Your task to perform on an android device: open the mobile data screen to see how much data has been used Image 0: 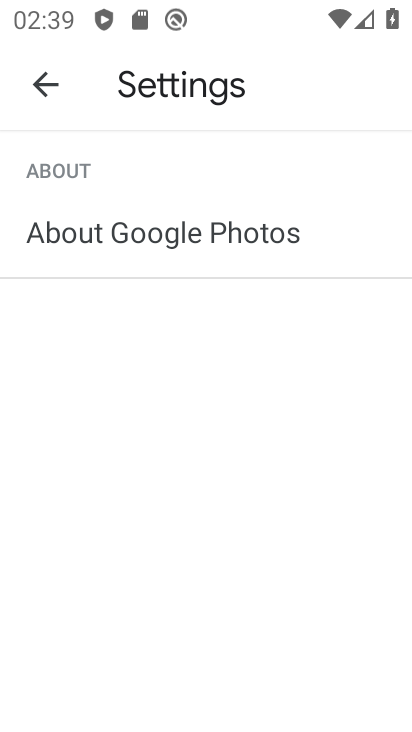
Step 0: press back button
Your task to perform on an android device: open the mobile data screen to see how much data has been used Image 1: 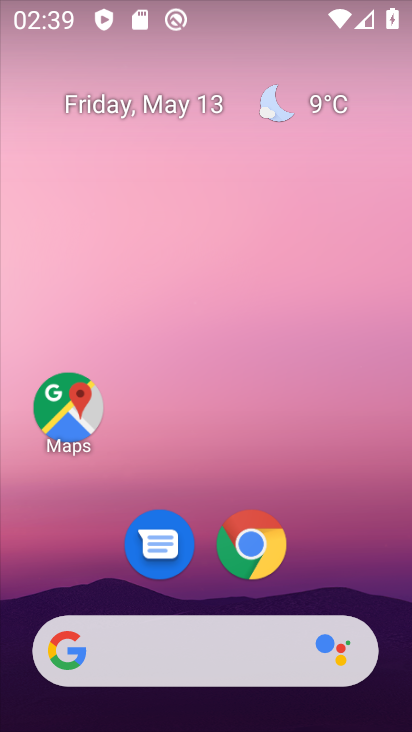
Step 1: drag from (314, 512) to (233, 33)
Your task to perform on an android device: open the mobile data screen to see how much data has been used Image 2: 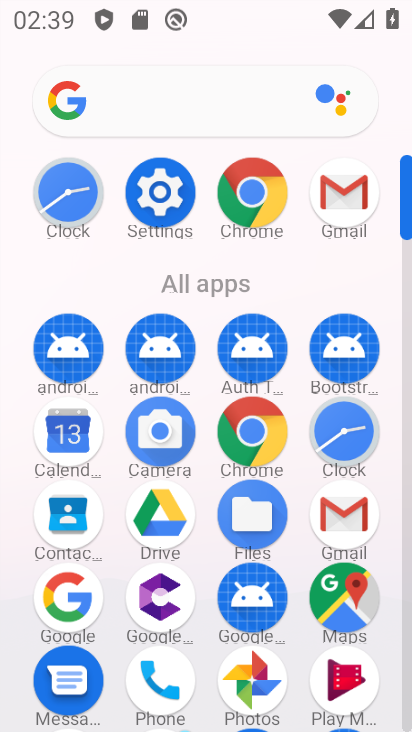
Step 2: drag from (13, 550) to (7, 269)
Your task to perform on an android device: open the mobile data screen to see how much data has been used Image 3: 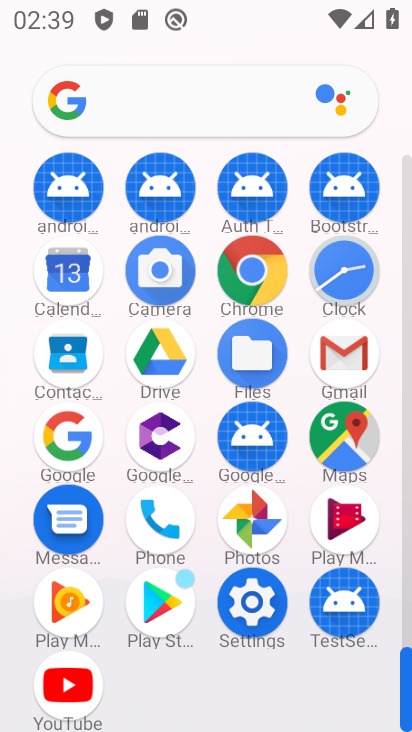
Step 3: click (257, 601)
Your task to perform on an android device: open the mobile data screen to see how much data has been used Image 4: 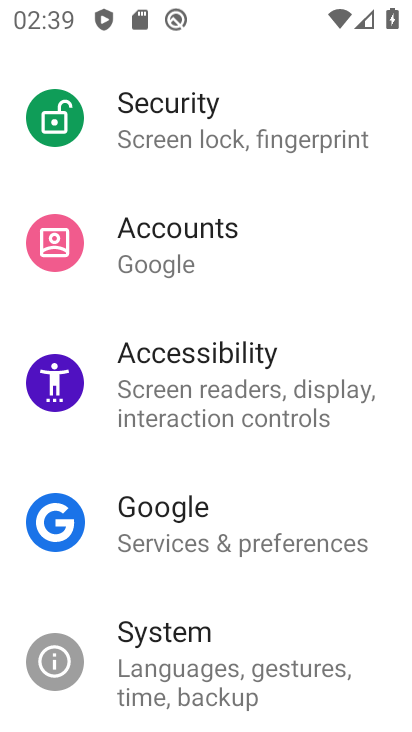
Step 4: drag from (225, 139) to (242, 675)
Your task to perform on an android device: open the mobile data screen to see how much data has been used Image 5: 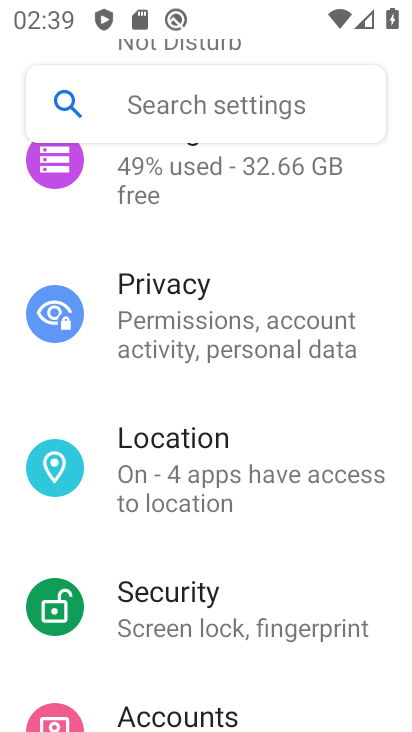
Step 5: drag from (295, 176) to (293, 630)
Your task to perform on an android device: open the mobile data screen to see how much data has been used Image 6: 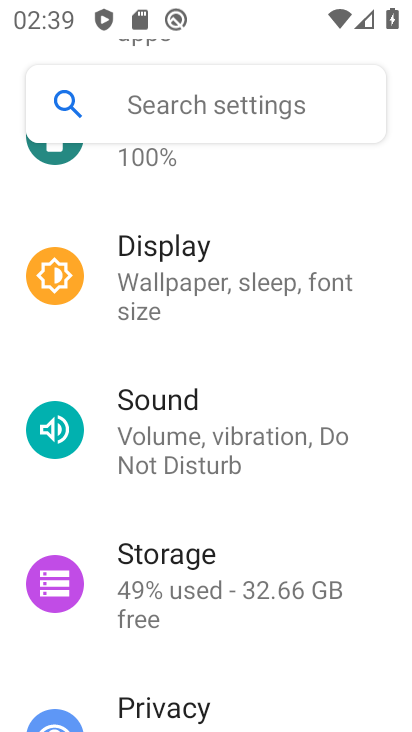
Step 6: drag from (309, 257) to (309, 658)
Your task to perform on an android device: open the mobile data screen to see how much data has been used Image 7: 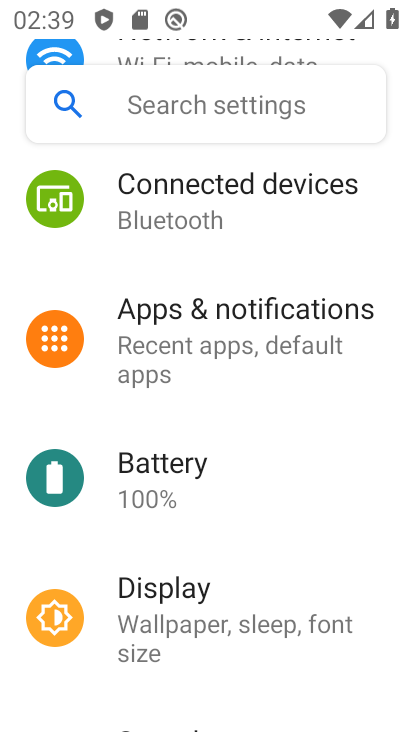
Step 7: drag from (290, 209) to (268, 646)
Your task to perform on an android device: open the mobile data screen to see how much data has been used Image 8: 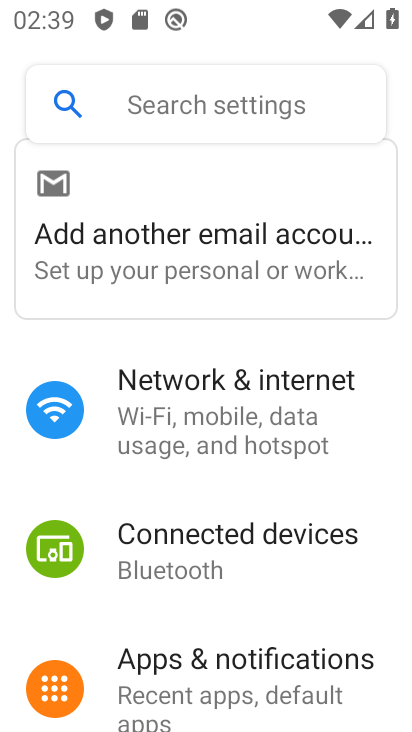
Step 8: click (255, 421)
Your task to perform on an android device: open the mobile data screen to see how much data has been used Image 9: 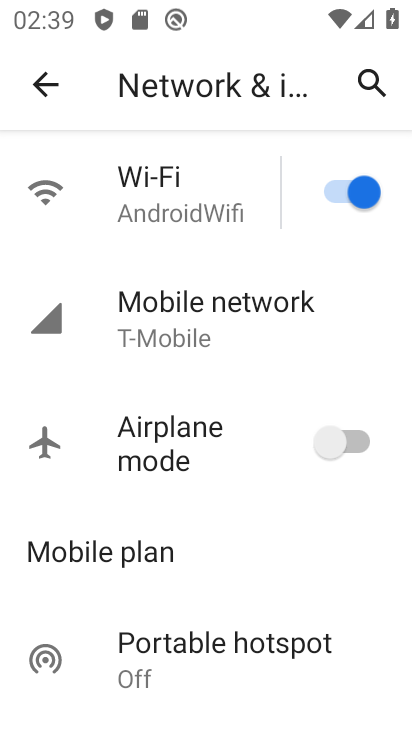
Step 9: click (208, 296)
Your task to perform on an android device: open the mobile data screen to see how much data has been used Image 10: 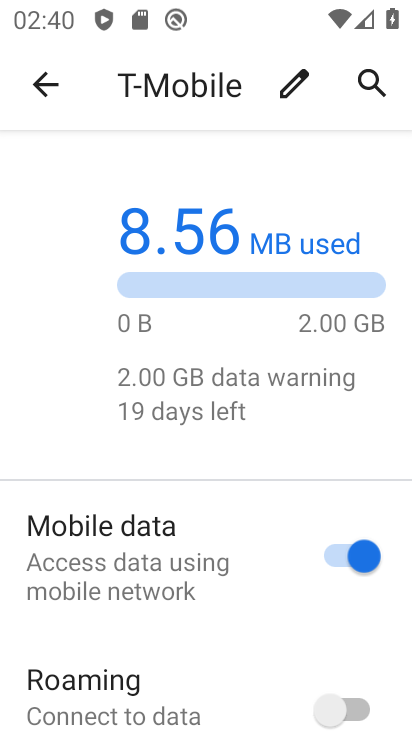
Step 10: task complete